Your task to perform on an android device: Search for vegetarian restaurants on Maps Image 0: 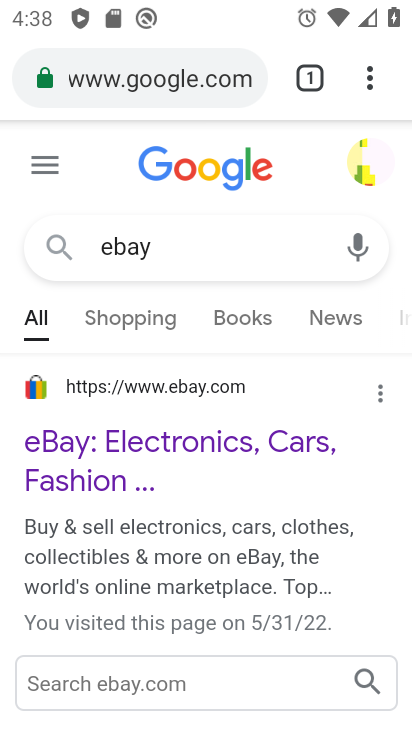
Step 0: press home button
Your task to perform on an android device: Search for vegetarian restaurants on Maps Image 1: 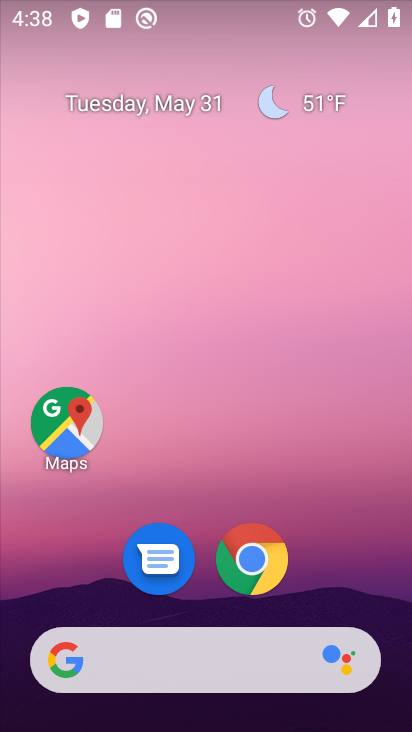
Step 1: click (74, 429)
Your task to perform on an android device: Search for vegetarian restaurants on Maps Image 2: 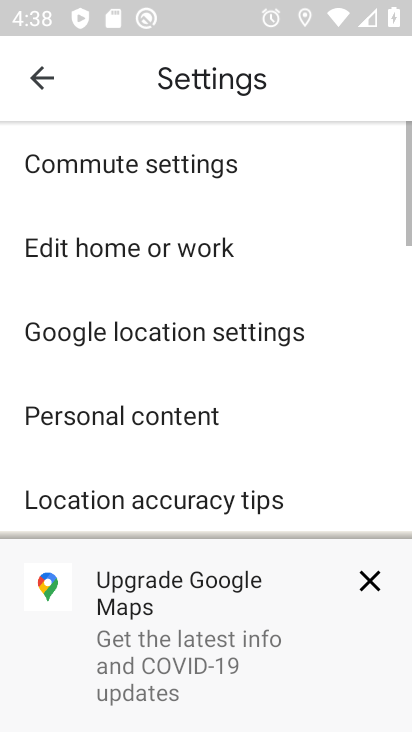
Step 2: click (21, 94)
Your task to perform on an android device: Search for vegetarian restaurants on Maps Image 3: 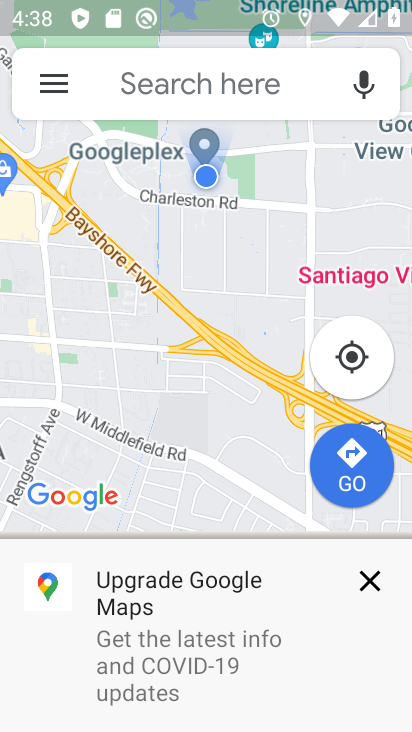
Step 3: click (181, 72)
Your task to perform on an android device: Search for vegetarian restaurants on Maps Image 4: 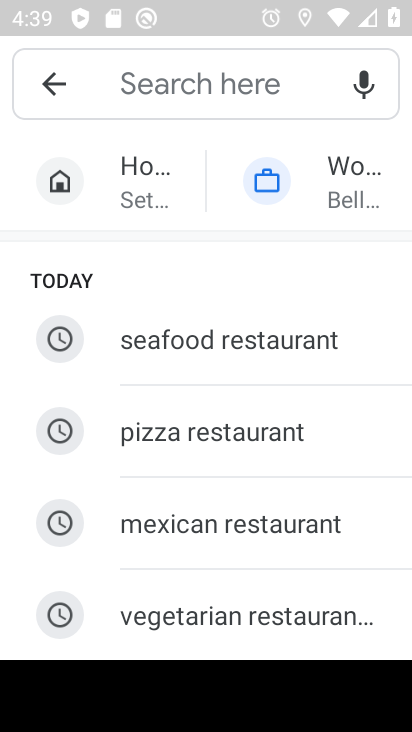
Step 4: type "vegetarian restaurants"
Your task to perform on an android device: Search for vegetarian restaurants on Maps Image 5: 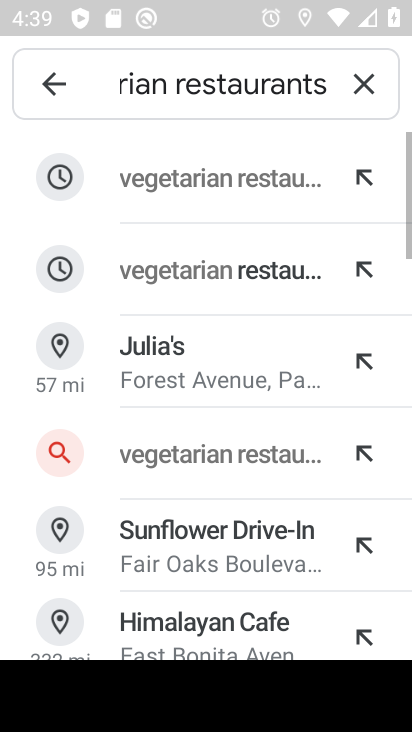
Step 5: click (220, 185)
Your task to perform on an android device: Search for vegetarian restaurants on Maps Image 6: 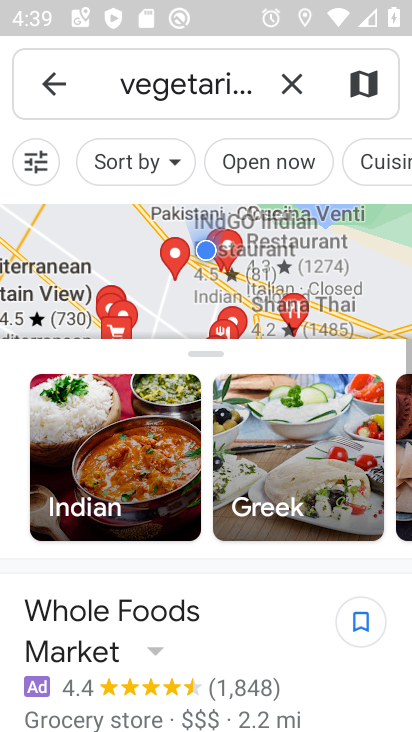
Step 6: task complete